Your task to perform on an android device: Show me the alarms in the clock app Image 0: 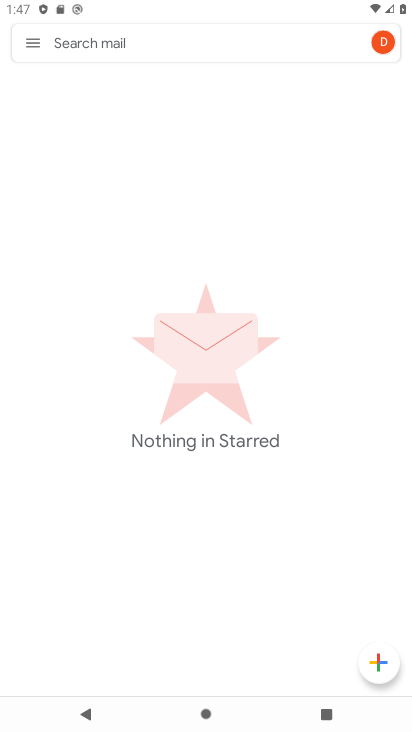
Step 0: click (24, 37)
Your task to perform on an android device: Show me the alarms in the clock app Image 1: 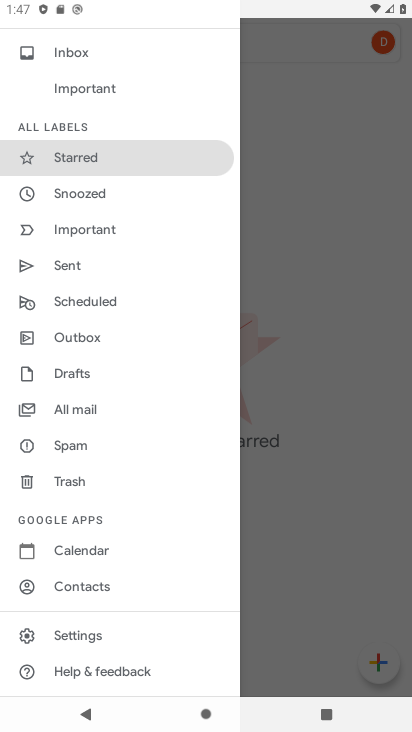
Step 1: press home button
Your task to perform on an android device: Show me the alarms in the clock app Image 2: 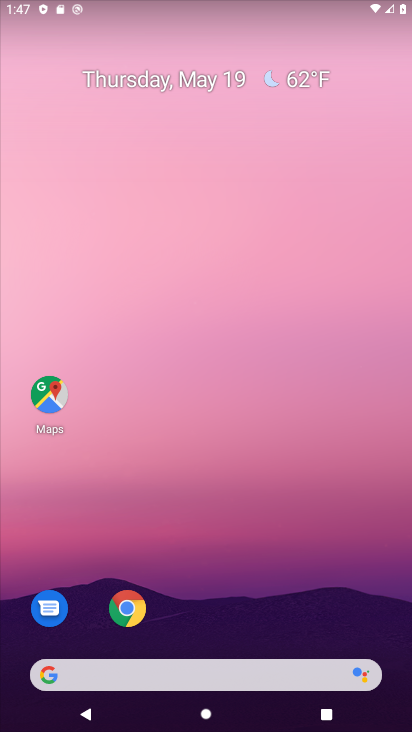
Step 2: drag from (199, 644) to (142, 39)
Your task to perform on an android device: Show me the alarms in the clock app Image 3: 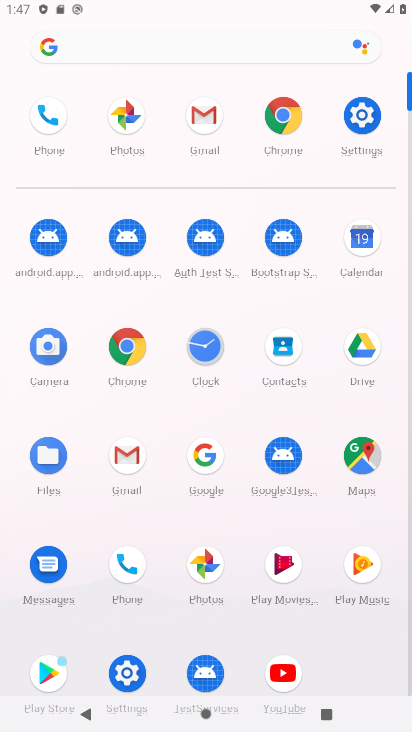
Step 3: click (195, 358)
Your task to perform on an android device: Show me the alarms in the clock app Image 4: 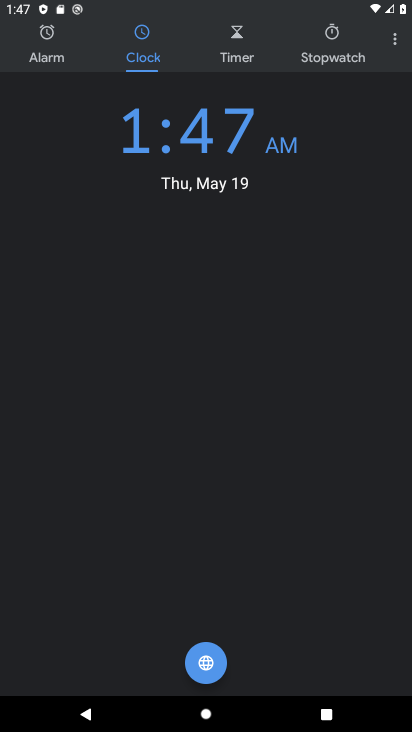
Step 4: click (20, 45)
Your task to perform on an android device: Show me the alarms in the clock app Image 5: 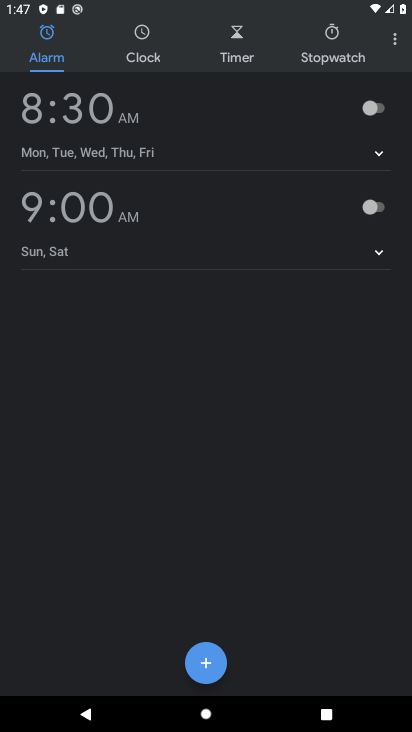
Step 5: task complete